Your task to perform on an android device: Open Google Chrome and click the shortcut for Amazon.com Image 0: 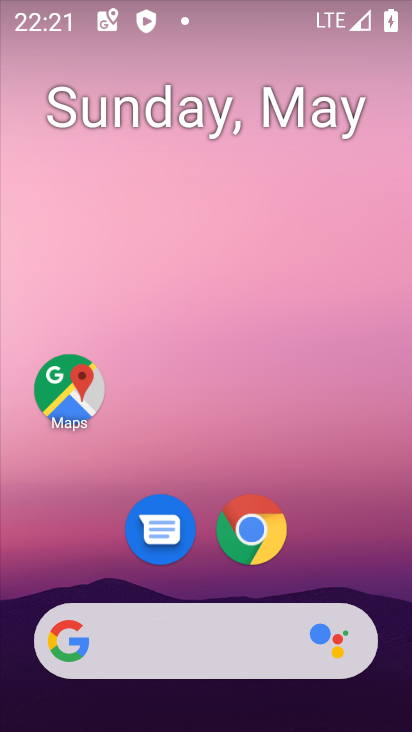
Step 0: click (265, 513)
Your task to perform on an android device: Open Google Chrome and click the shortcut for Amazon.com Image 1: 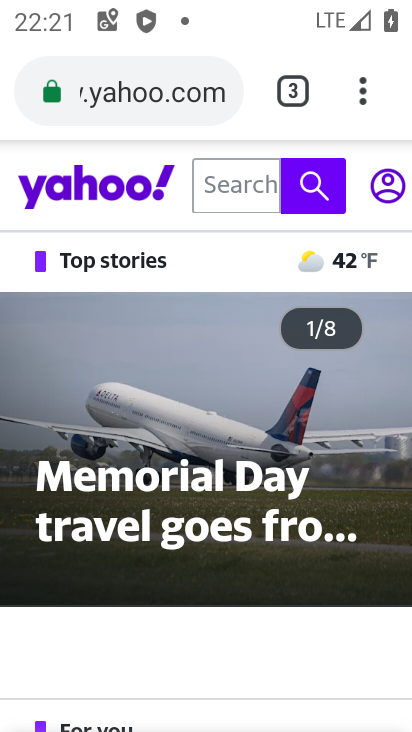
Step 1: click (376, 93)
Your task to perform on an android device: Open Google Chrome and click the shortcut for Amazon.com Image 2: 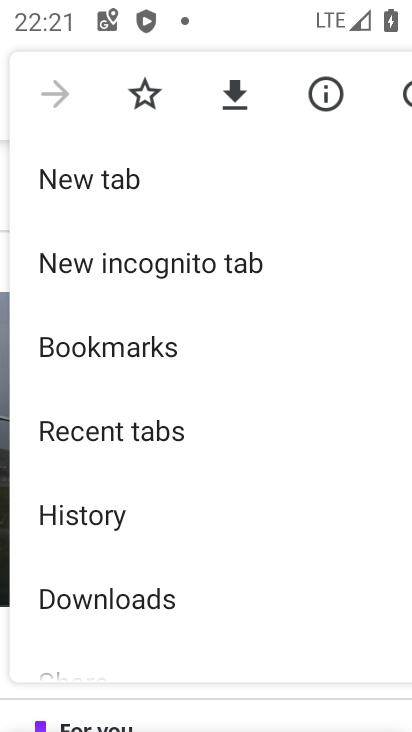
Step 2: click (233, 28)
Your task to perform on an android device: Open Google Chrome and click the shortcut for Amazon.com Image 3: 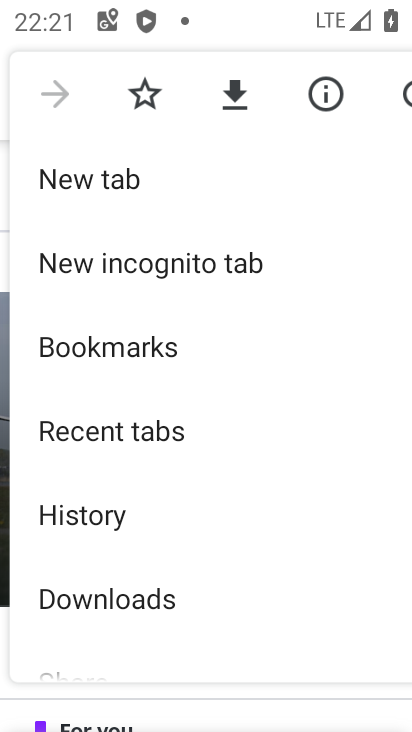
Step 3: click (0, 191)
Your task to perform on an android device: Open Google Chrome and click the shortcut for Amazon.com Image 4: 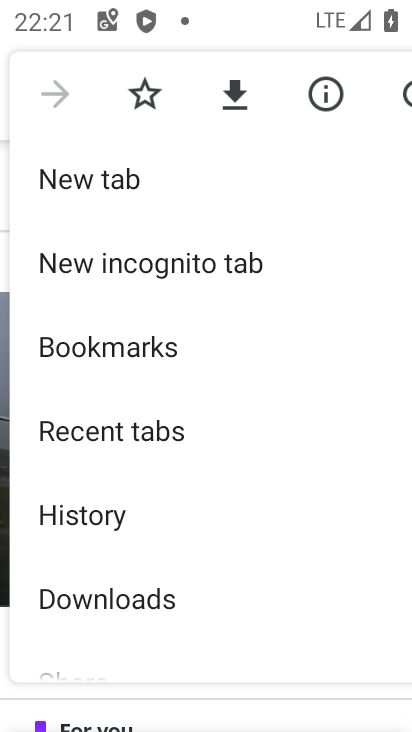
Step 4: click (2, 183)
Your task to perform on an android device: Open Google Chrome and click the shortcut for Amazon.com Image 5: 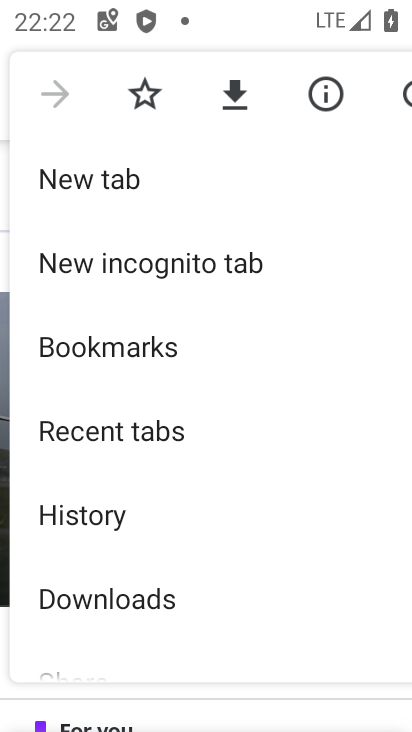
Step 5: click (1, 617)
Your task to perform on an android device: Open Google Chrome and click the shortcut for Amazon.com Image 6: 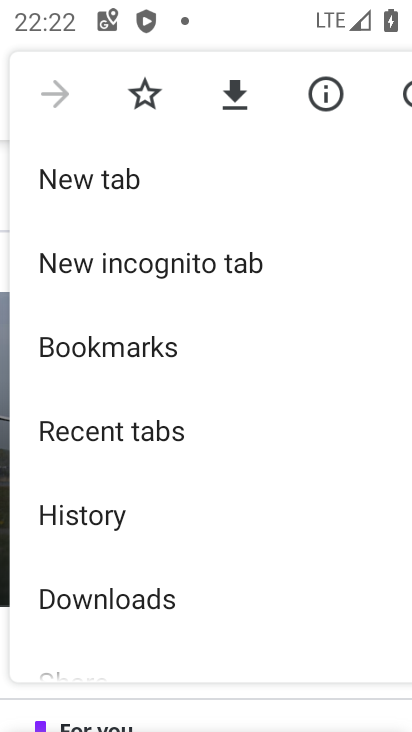
Step 6: task complete